Your task to perform on an android device: Go to Yahoo.com Image 0: 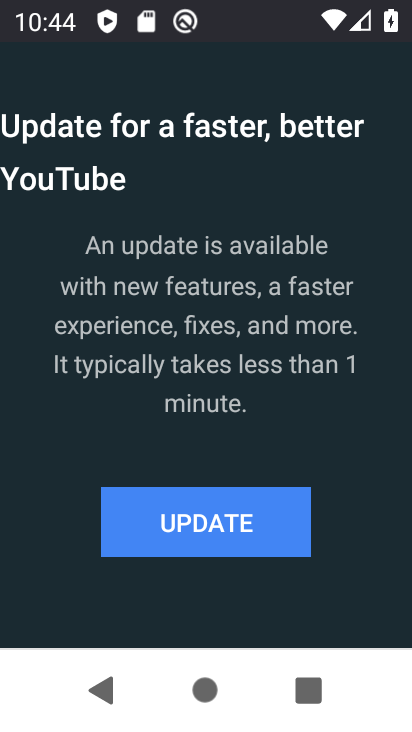
Step 0: press home button
Your task to perform on an android device: Go to Yahoo.com Image 1: 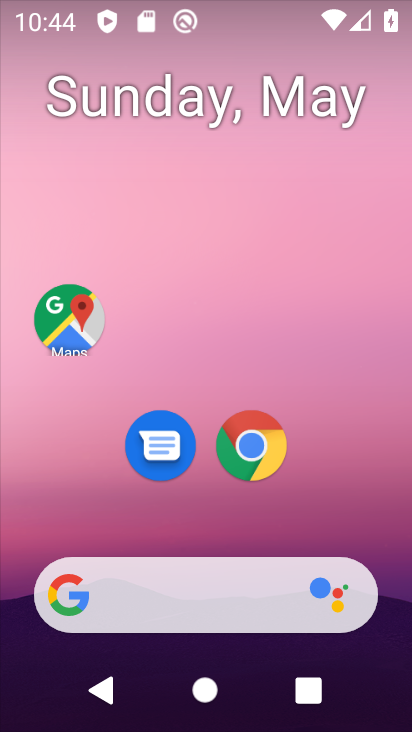
Step 1: click (280, 447)
Your task to perform on an android device: Go to Yahoo.com Image 2: 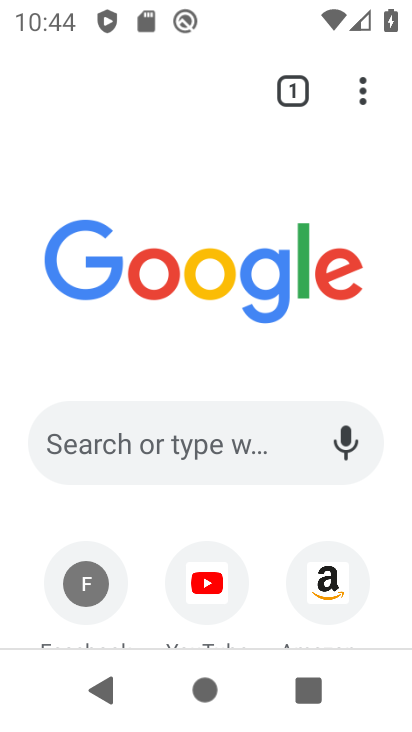
Step 2: drag from (264, 525) to (263, 184)
Your task to perform on an android device: Go to Yahoo.com Image 3: 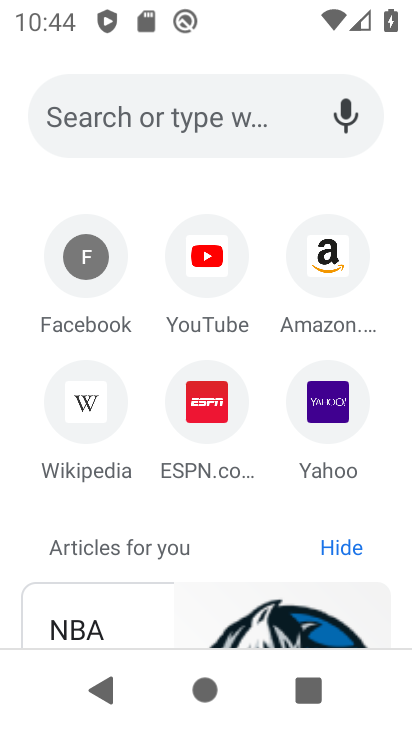
Step 3: click (320, 430)
Your task to perform on an android device: Go to Yahoo.com Image 4: 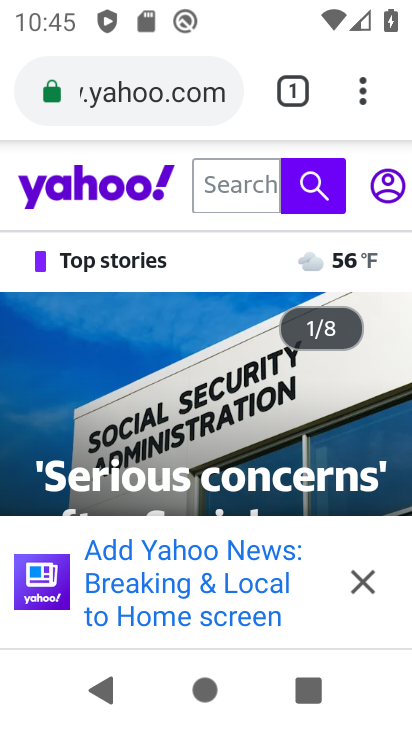
Step 4: task complete